Your task to perform on an android device: Go to notification settings Image 0: 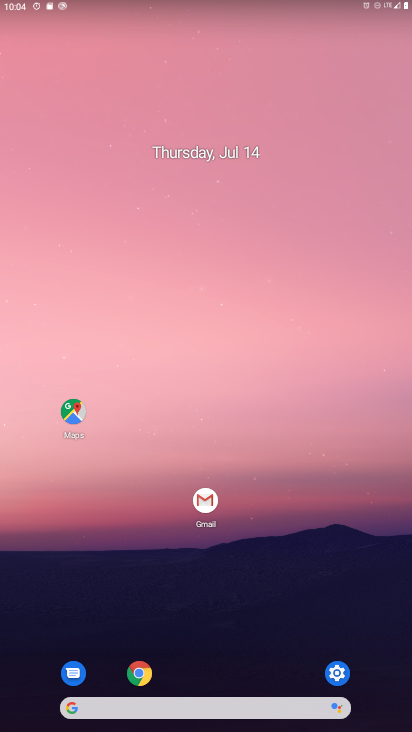
Step 0: press home button
Your task to perform on an android device: Go to notification settings Image 1: 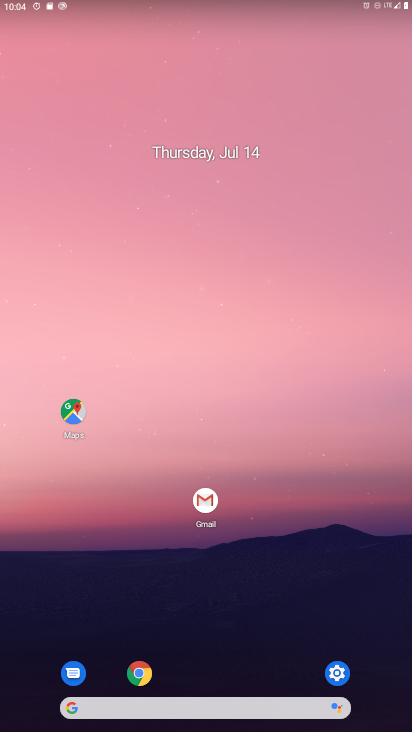
Step 1: click (345, 660)
Your task to perform on an android device: Go to notification settings Image 2: 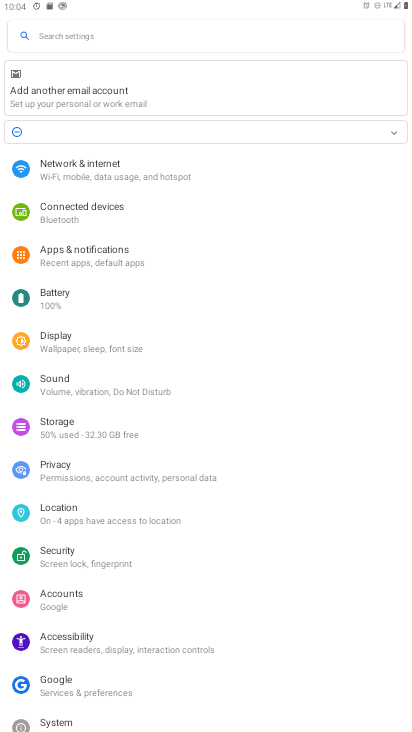
Step 2: click (100, 35)
Your task to perform on an android device: Go to notification settings Image 3: 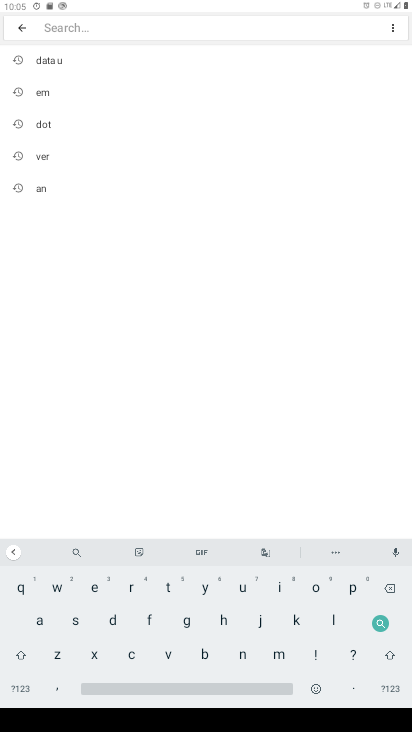
Step 3: click (238, 655)
Your task to perform on an android device: Go to notification settings Image 4: 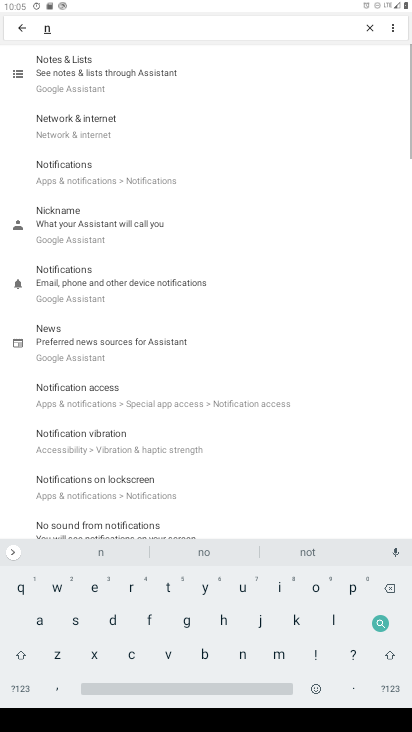
Step 4: click (314, 585)
Your task to perform on an android device: Go to notification settings Image 5: 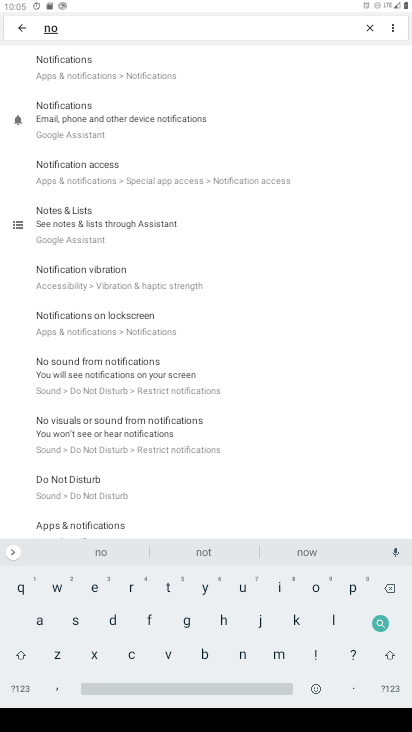
Step 5: click (68, 65)
Your task to perform on an android device: Go to notification settings Image 6: 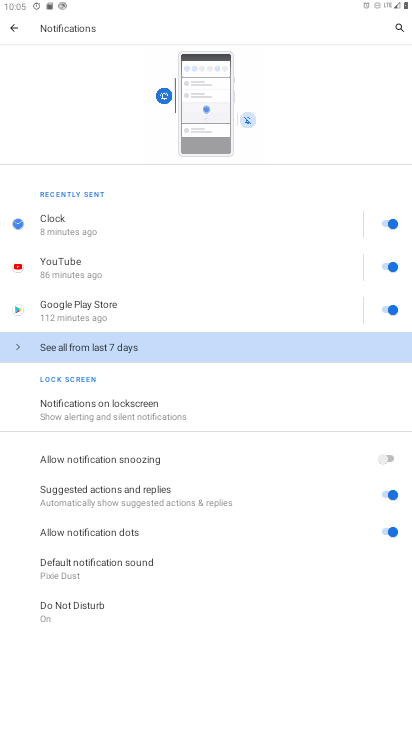
Step 6: click (69, 404)
Your task to perform on an android device: Go to notification settings Image 7: 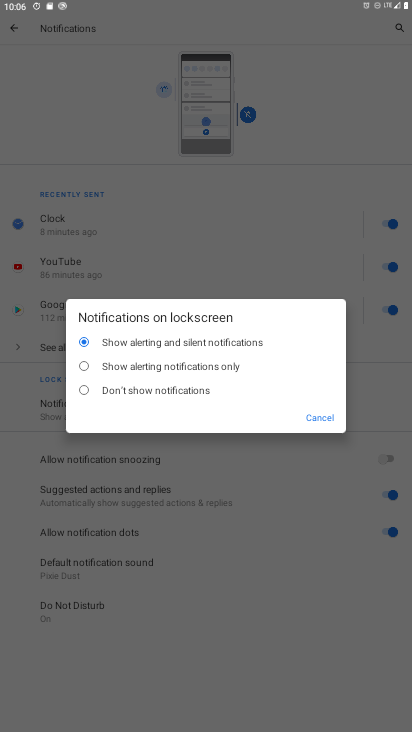
Step 7: task complete